Your task to perform on an android device: open sync settings in chrome Image 0: 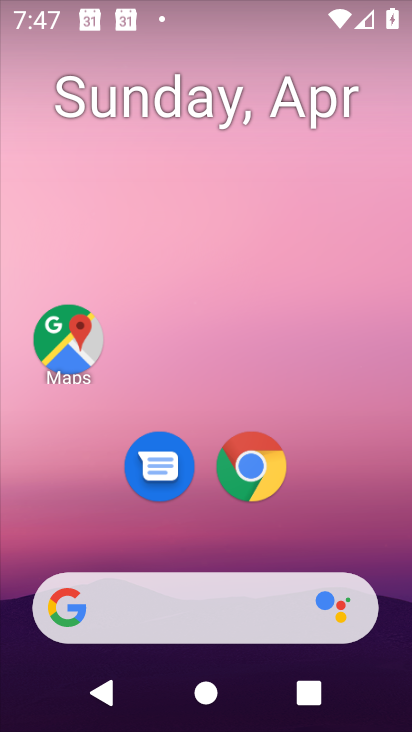
Step 0: click (264, 460)
Your task to perform on an android device: open sync settings in chrome Image 1: 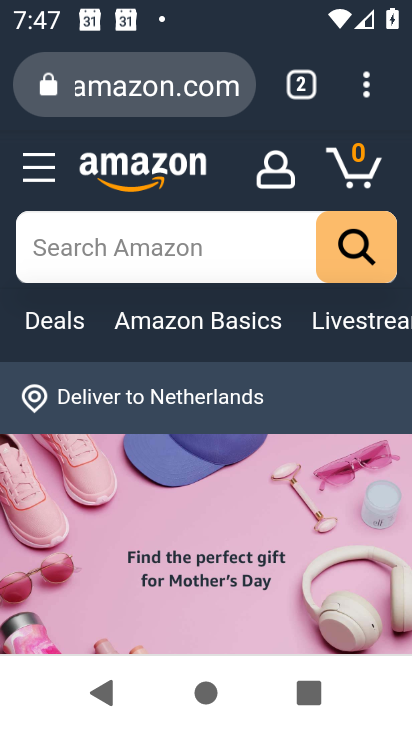
Step 1: click (368, 89)
Your task to perform on an android device: open sync settings in chrome Image 2: 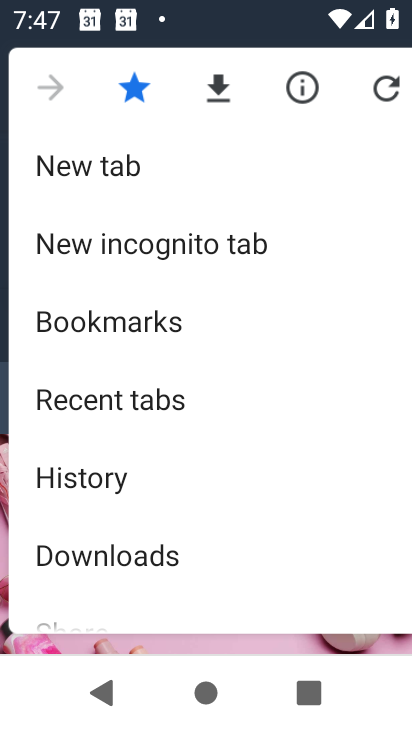
Step 2: drag from (105, 560) to (230, 40)
Your task to perform on an android device: open sync settings in chrome Image 3: 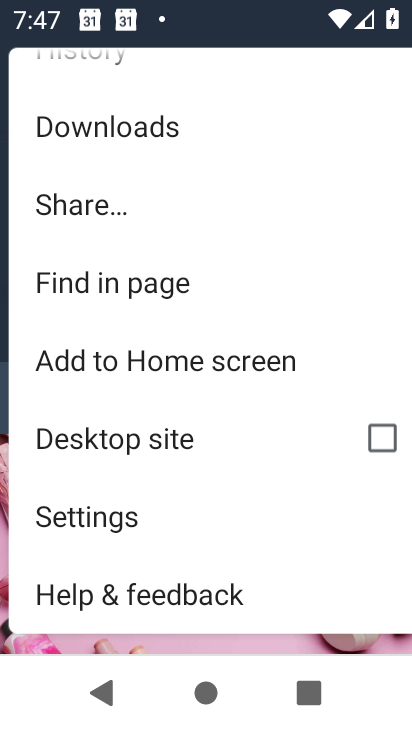
Step 3: click (117, 523)
Your task to perform on an android device: open sync settings in chrome Image 4: 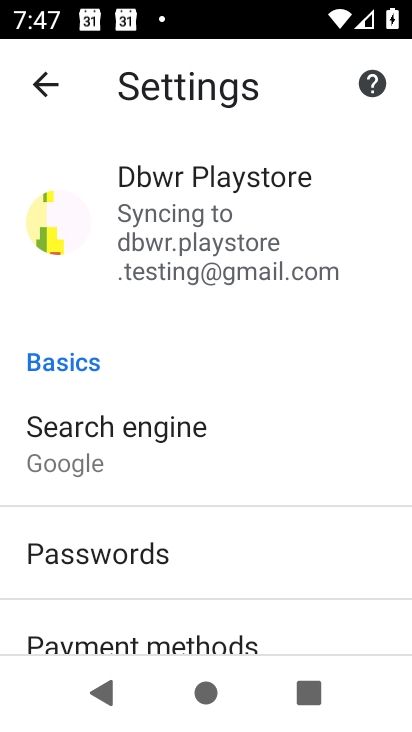
Step 4: click (190, 258)
Your task to perform on an android device: open sync settings in chrome Image 5: 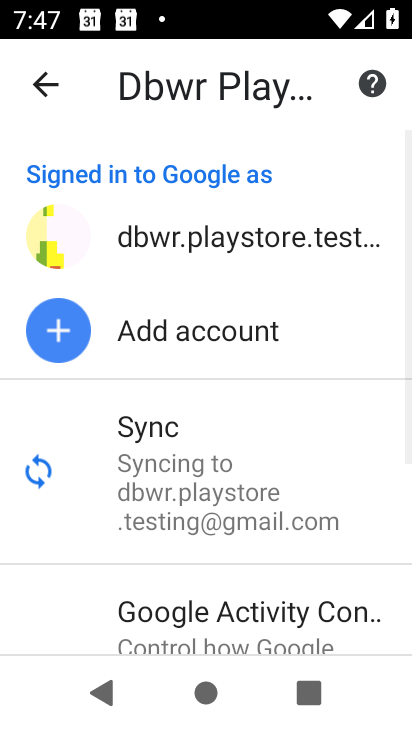
Step 5: click (177, 494)
Your task to perform on an android device: open sync settings in chrome Image 6: 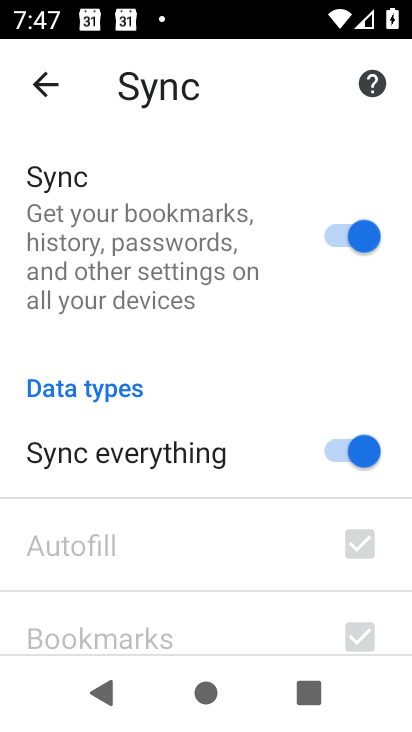
Step 6: task complete